Your task to perform on an android device: Show me recent news Image 0: 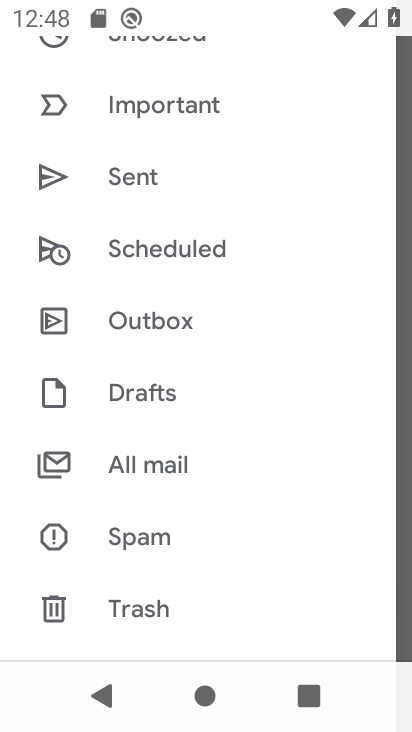
Step 0: press home button
Your task to perform on an android device: Show me recent news Image 1: 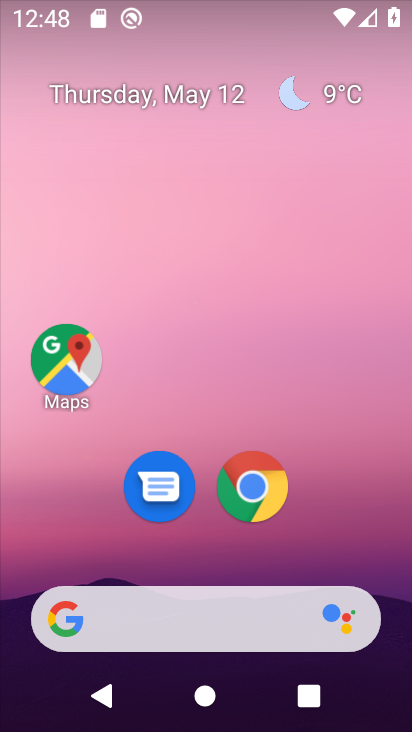
Step 1: drag from (208, 583) to (205, 225)
Your task to perform on an android device: Show me recent news Image 2: 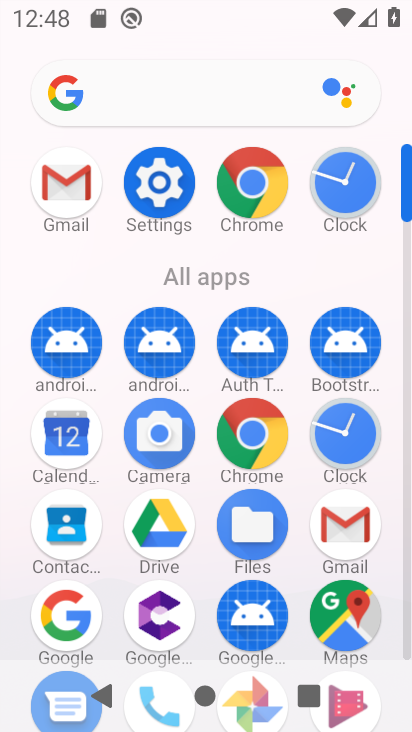
Step 2: click (75, 607)
Your task to perform on an android device: Show me recent news Image 3: 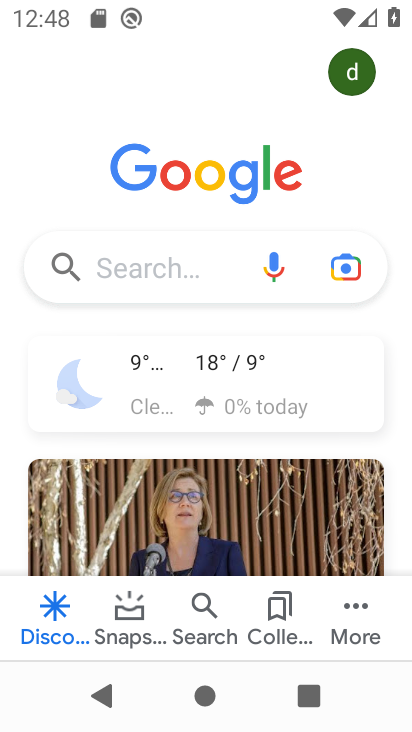
Step 3: click (159, 276)
Your task to perform on an android device: Show me recent news Image 4: 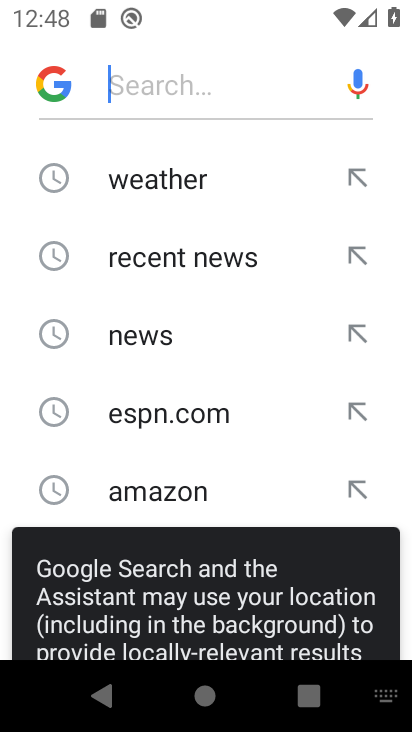
Step 4: click (151, 255)
Your task to perform on an android device: Show me recent news Image 5: 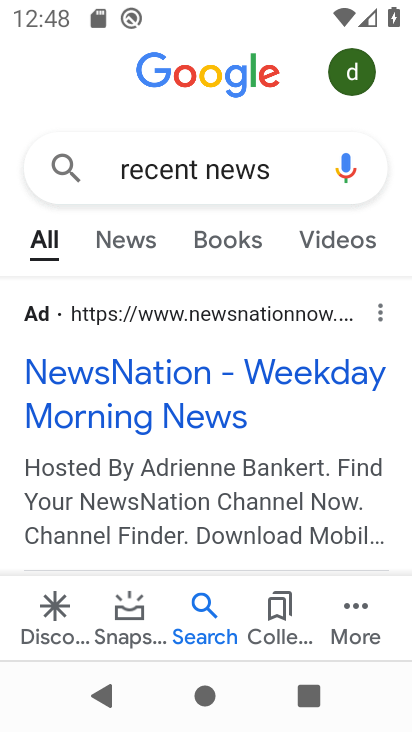
Step 5: task complete